Your task to perform on an android device: toggle notification dots Image 0: 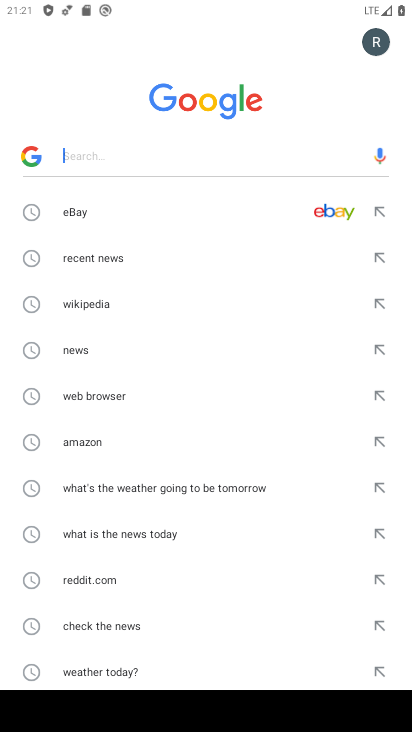
Step 0: press home button
Your task to perform on an android device: toggle notification dots Image 1: 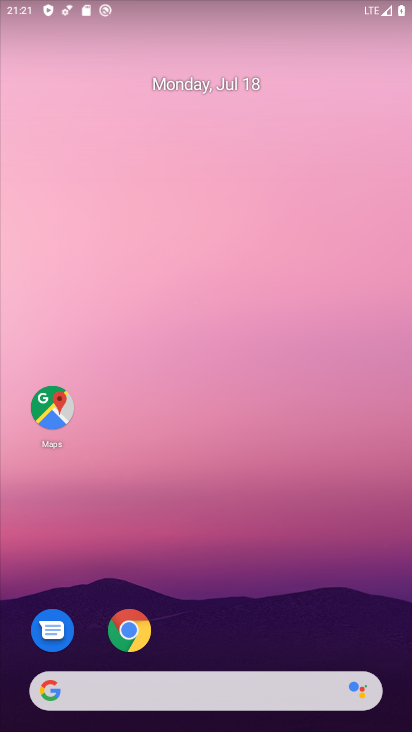
Step 1: drag from (221, 643) to (226, 8)
Your task to perform on an android device: toggle notification dots Image 2: 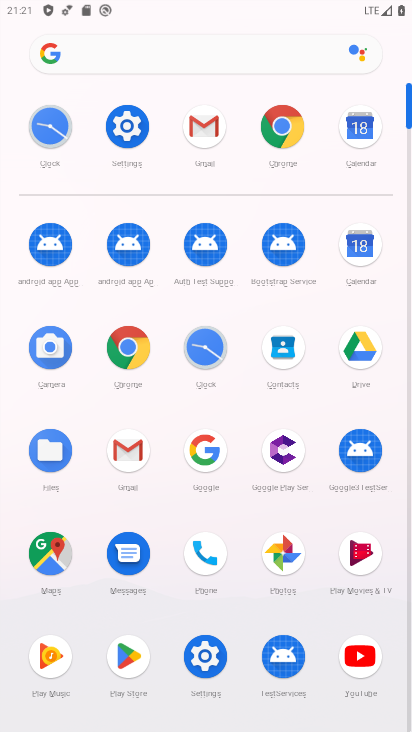
Step 2: click (142, 134)
Your task to perform on an android device: toggle notification dots Image 3: 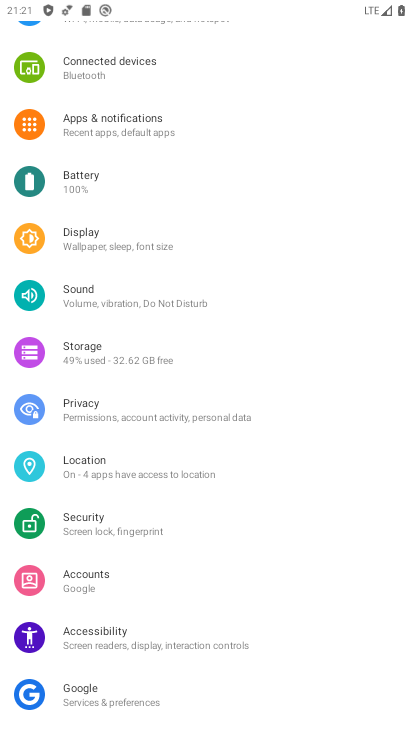
Step 3: drag from (152, 115) to (157, 715)
Your task to perform on an android device: toggle notification dots Image 4: 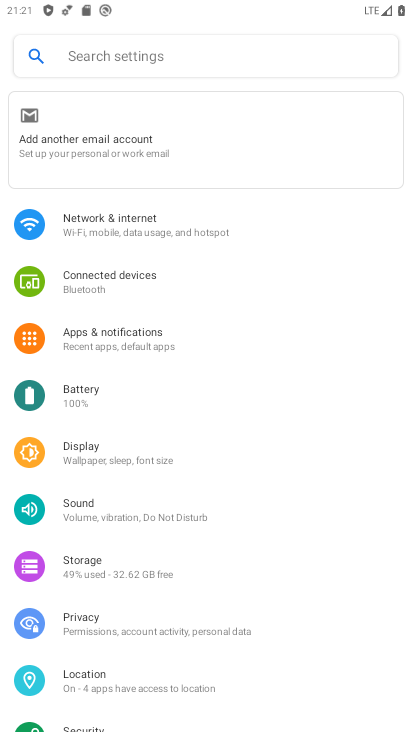
Step 4: click (197, 49)
Your task to perform on an android device: toggle notification dots Image 5: 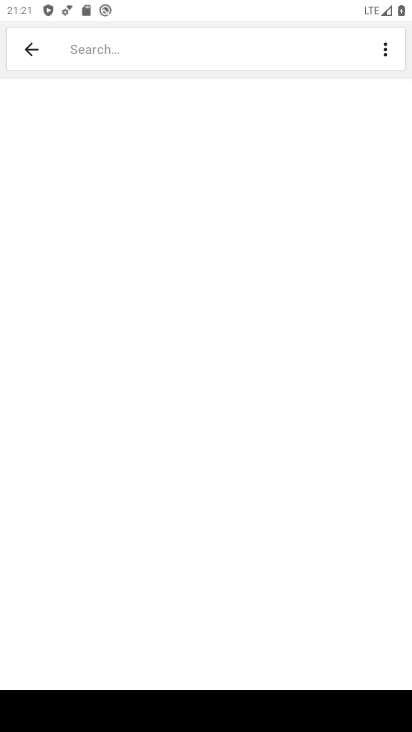
Step 5: type " notification dots "
Your task to perform on an android device: toggle notification dots Image 6: 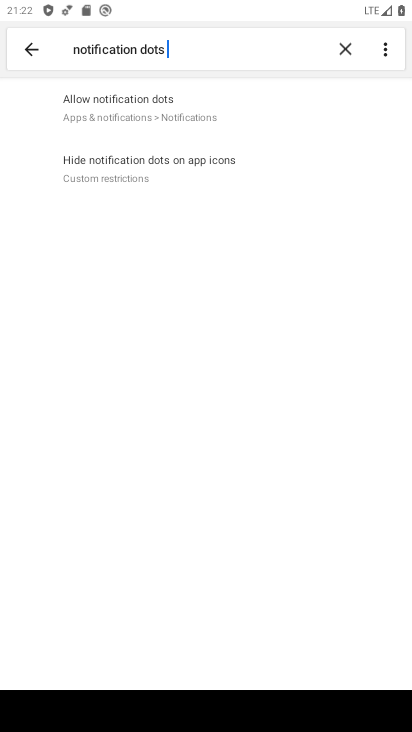
Step 6: click (108, 104)
Your task to perform on an android device: toggle notification dots Image 7: 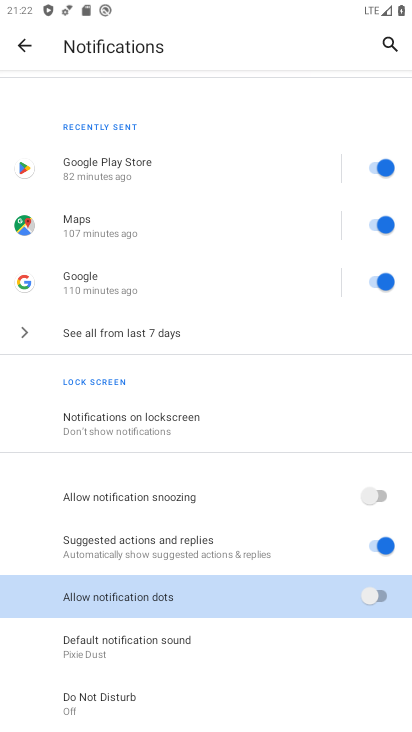
Step 7: click (383, 601)
Your task to perform on an android device: toggle notification dots Image 8: 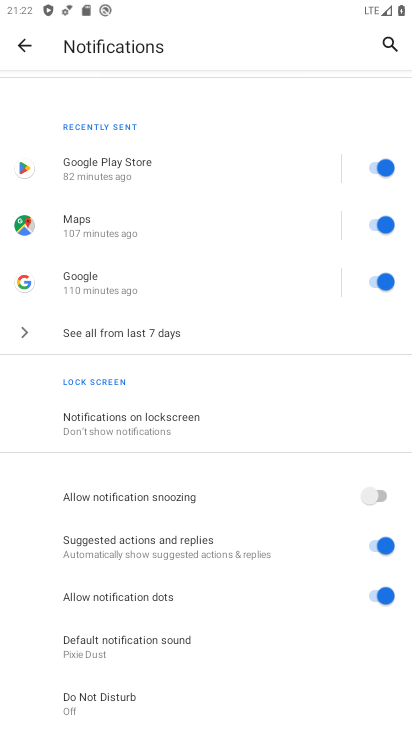
Step 8: task complete